Your task to perform on an android device: change your default location settings in chrome Image 0: 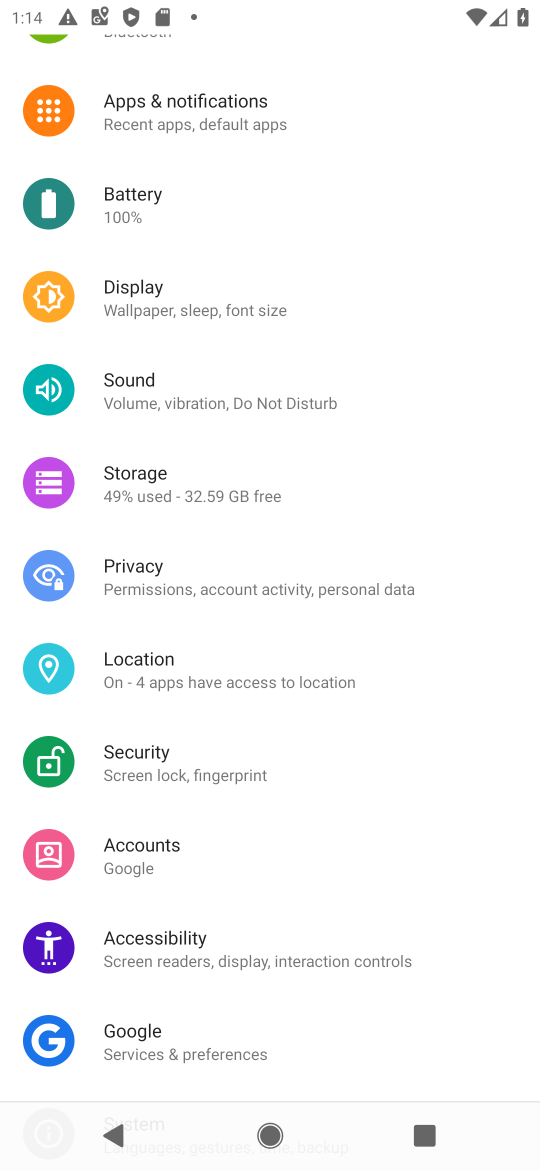
Step 0: press home button
Your task to perform on an android device: change your default location settings in chrome Image 1: 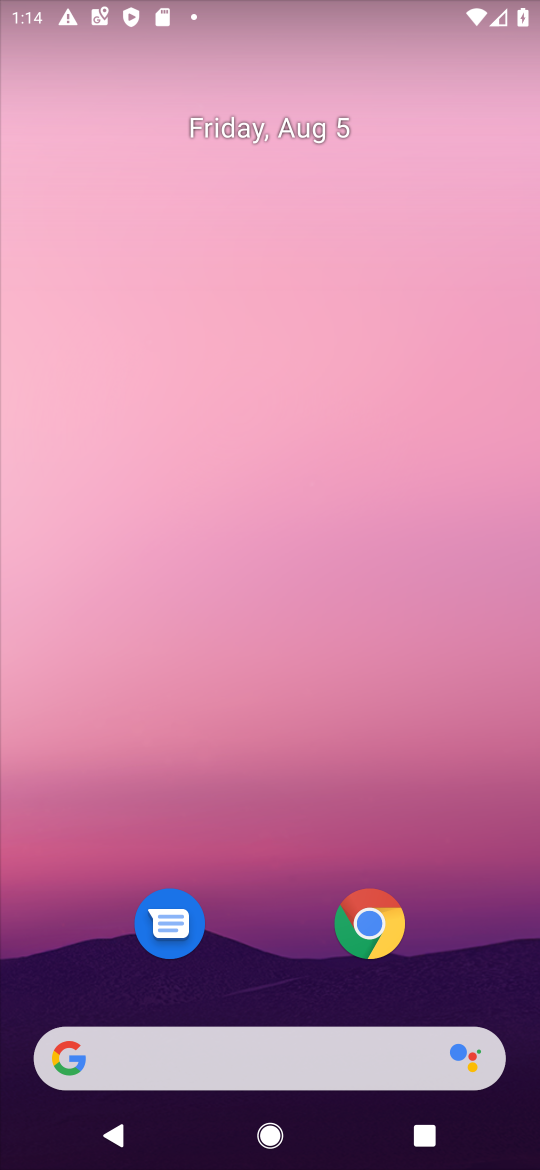
Step 1: drag from (272, 985) to (404, 107)
Your task to perform on an android device: change your default location settings in chrome Image 2: 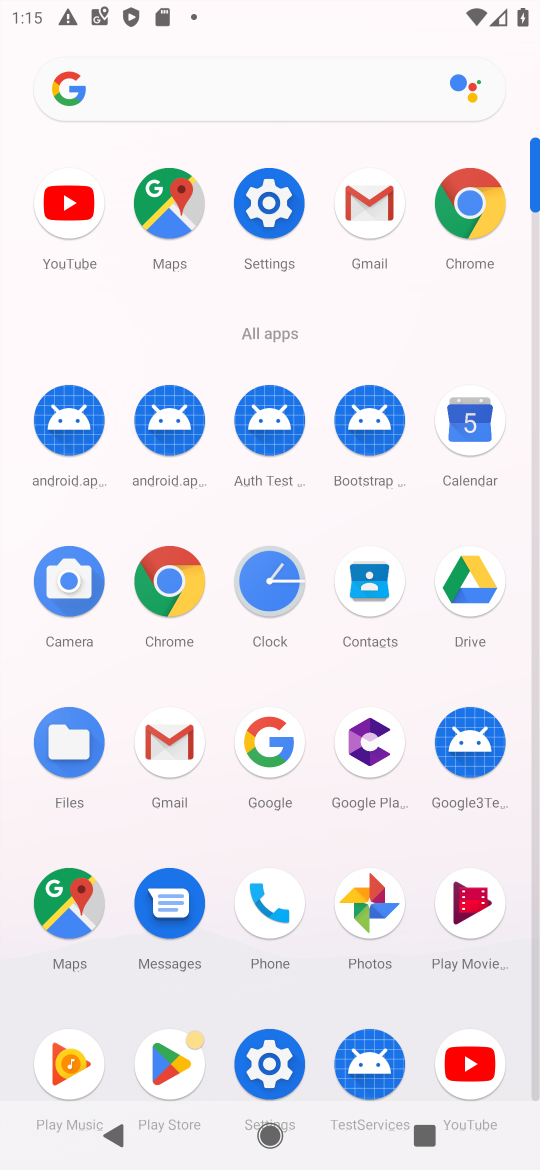
Step 2: click (175, 590)
Your task to perform on an android device: change your default location settings in chrome Image 3: 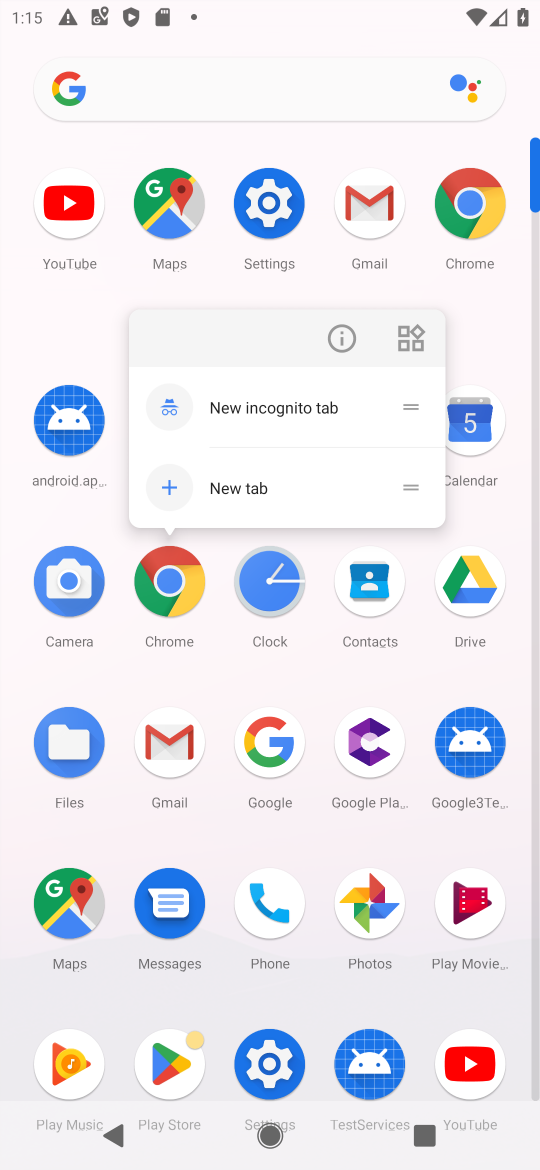
Step 3: click (193, 577)
Your task to perform on an android device: change your default location settings in chrome Image 4: 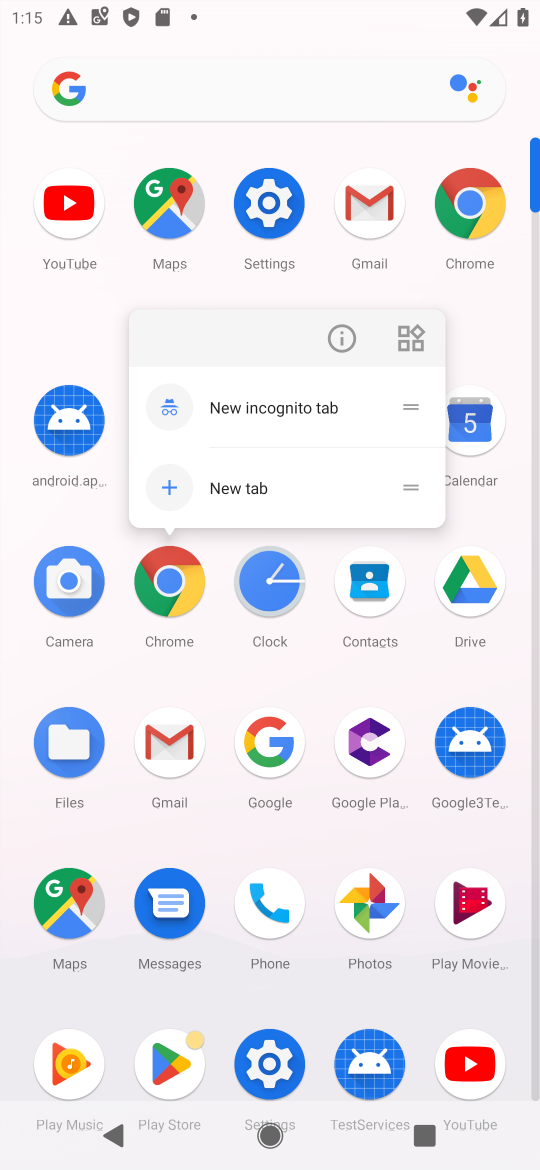
Step 4: click (197, 563)
Your task to perform on an android device: change your default location settings in chrome Image 5: 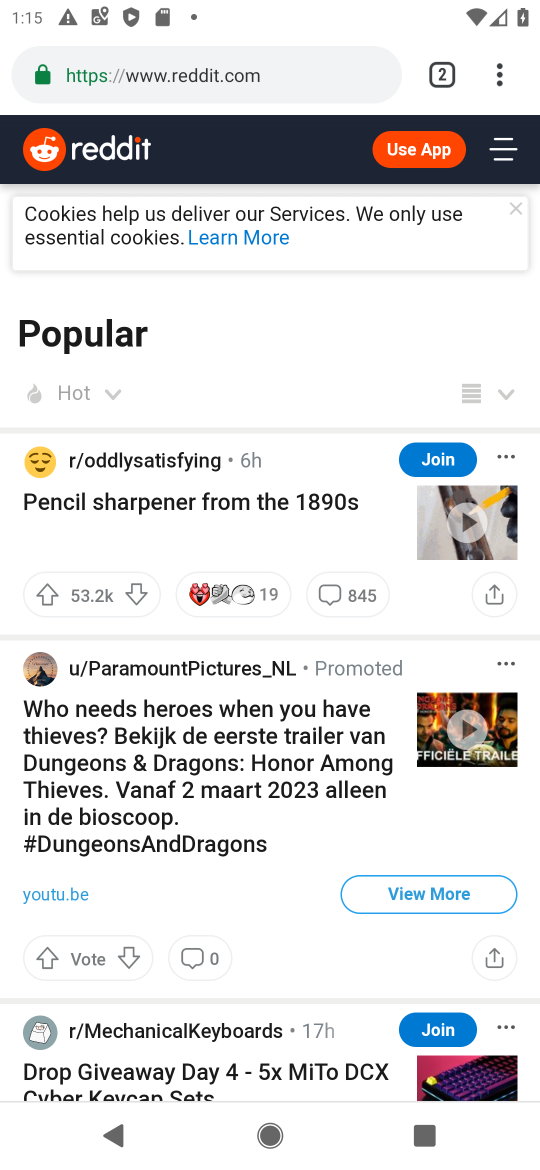
Step 5: drag from (498, 60) to (235, 896)
Your task to perform on an android device: change your default location settings in chrome Image 6: 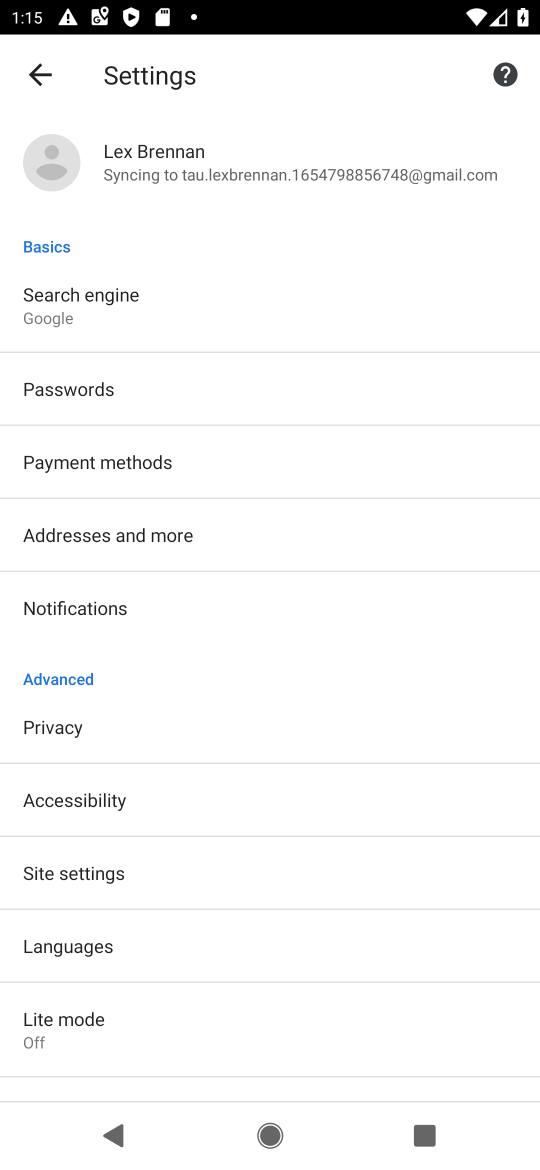
Step 6: click (129, 890)
Your task to perform on an android device: change your default location settings in chrome Image 7: 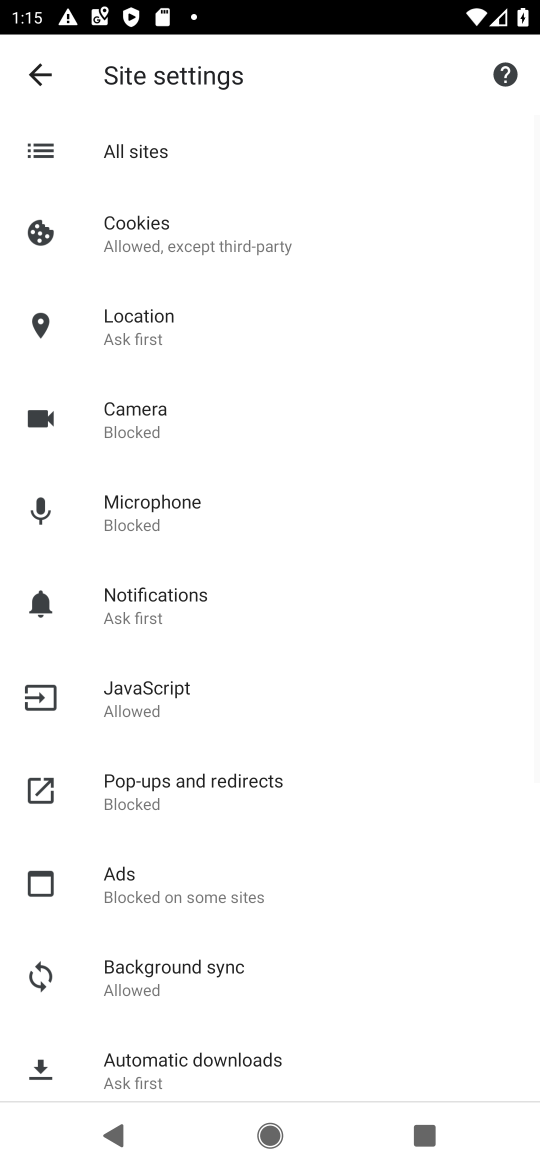
Step 7: click (81, 293)
Your task to perform on an android device: change your default location settings in chrome Image 8: 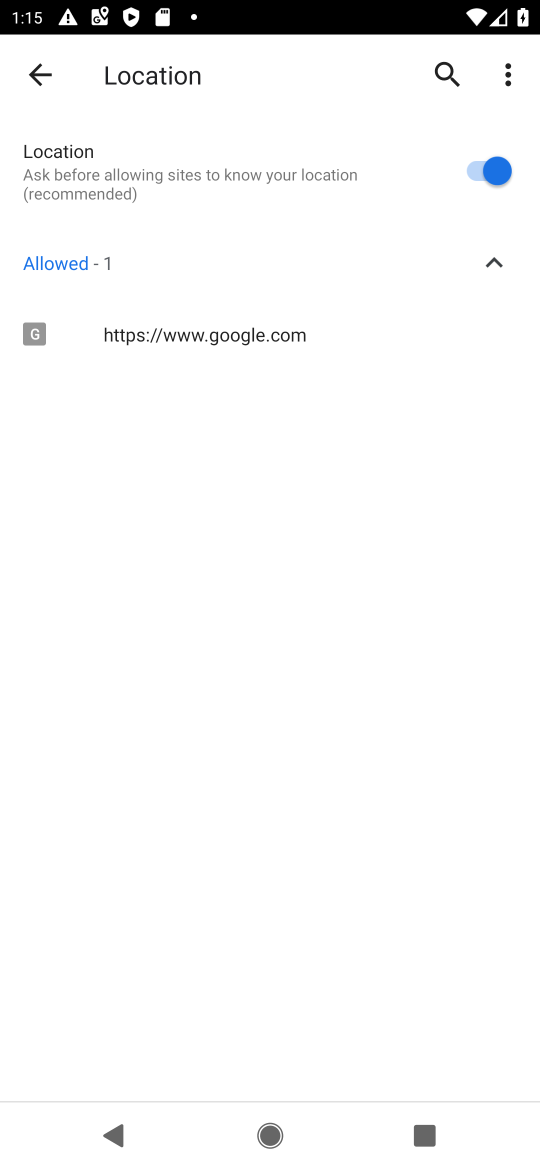
Step 8: click (456, 169)
Your task to perform on an android device: change your default location settings in chrome Image 9: 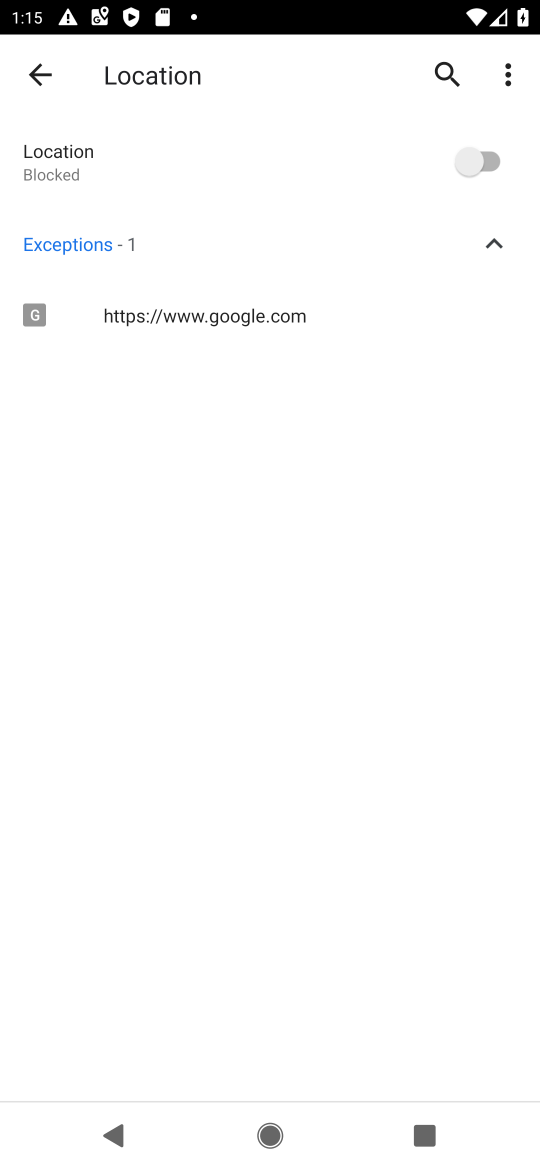
Step 9: task complete